Your task to perform on an android device: all mails in gmail Image 0: 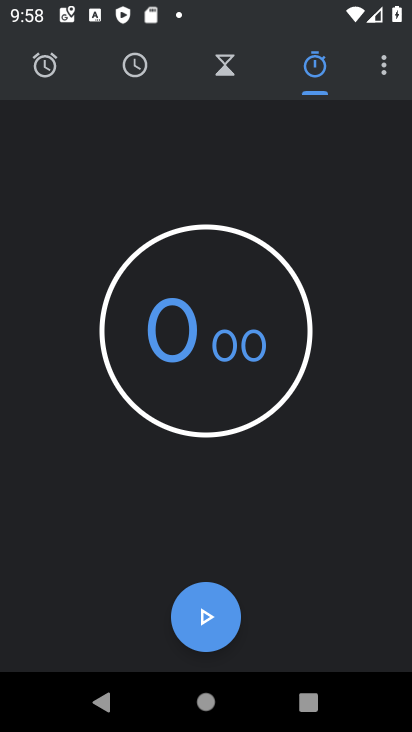
Step 0: press home button
Your task to perform on an android device: all mails in gmail Image 1: 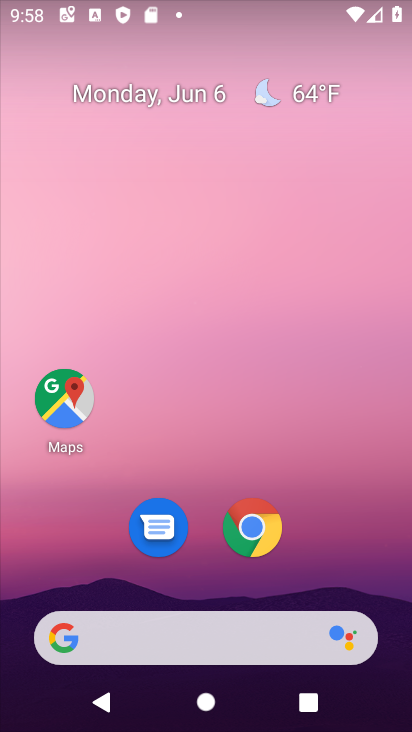
Step 1: drag from (195, 545) to (37, 21)
Your task to perform on an android device: all mails in gmail Image 2: 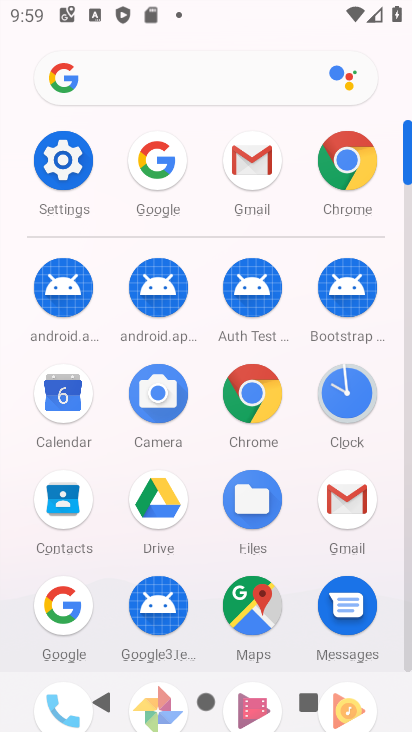
Step 2: click (350, 533)
Your task to perform on an android device: all mails in gmail Image 3: 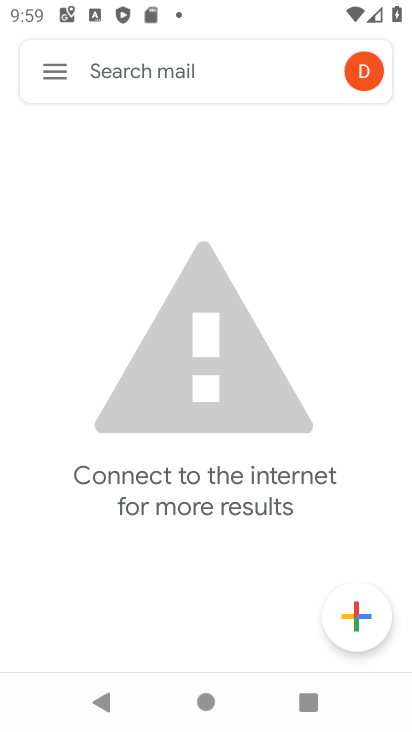
Step 3: click (48, 80)
Your task to perform on an android device: all mails in gmail Image 4: 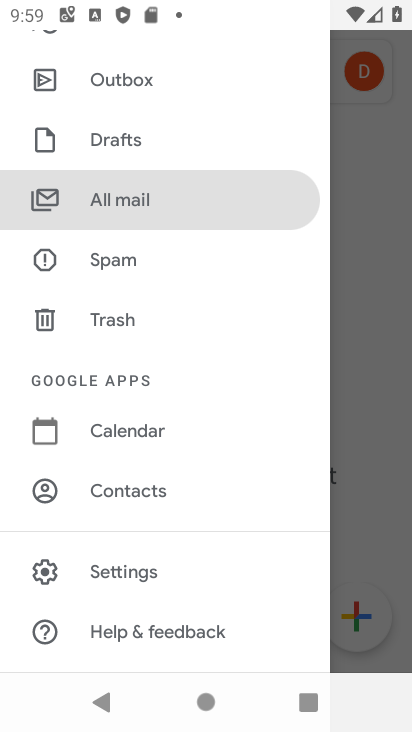
Step 4: task complete